Your task to perform on an android device: refresh tabs in the chrome app Image 0: 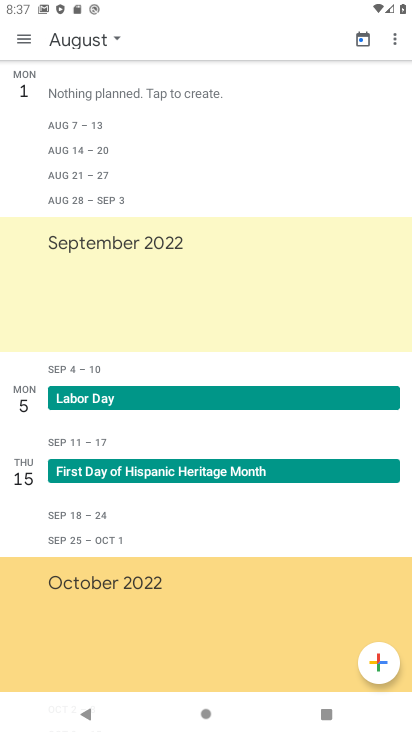
Step 0: press home button
Your task to perform on an android device: refresh tabs in the chrome app Image 1: 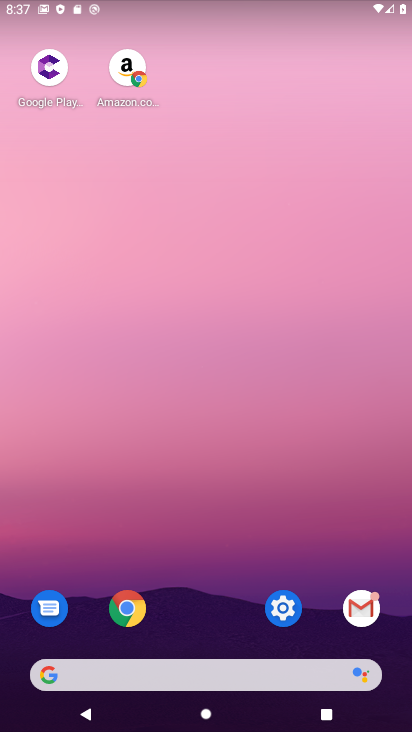
Step 1: click (126, 598)
Your task to perform on an android device: refresh tabs in the chrome app Image 2: 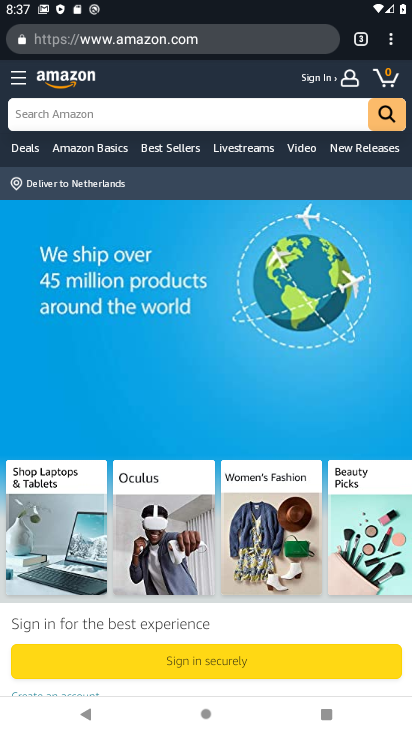
Step 2: click (391, 43)
Your task to perform on an android device: refresh tabs in the chrome app Image 3: 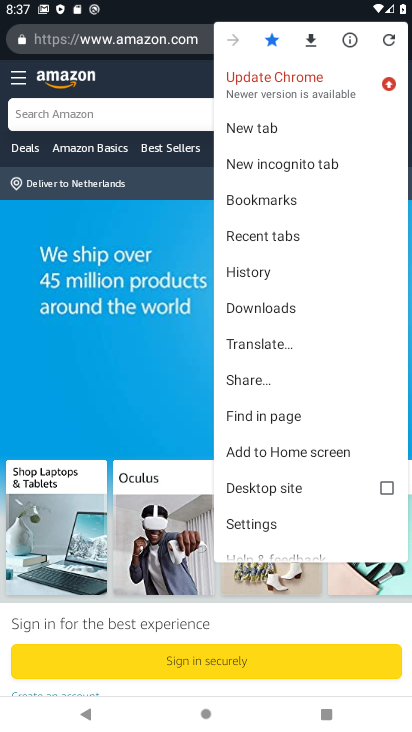
Step 3: click (386, 45)
Your task to perform on an android device: refresh tabs in the chrome app Image 4: 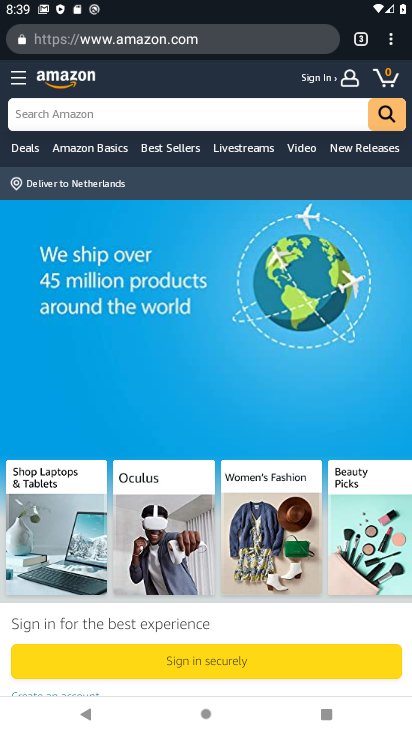
Step 4: task complete